Your task to perform on an android device: uninstall "Microsoft Authenticator" Image 0: 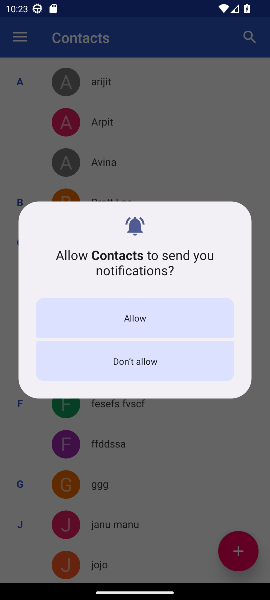
Step 0: press home button
Your task to perform on an android device: uninstall "Microsoft Authenticator" Image 1: 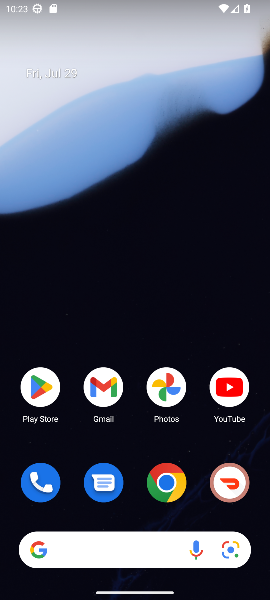
Step 1: click (41, 390)
Your task to perform on an android device: uninstall "Microsoft Authenticator" Image 2: 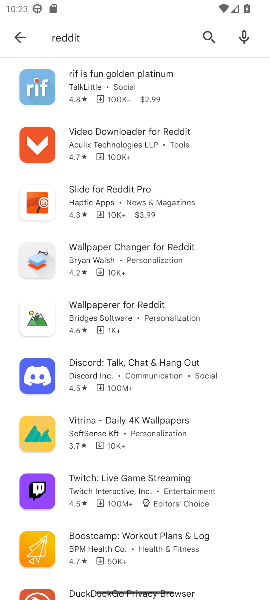
Step 2: click (209, 34)
Your task to perform on an android device: uninstall "Microsoft Authenticator" Image 3: 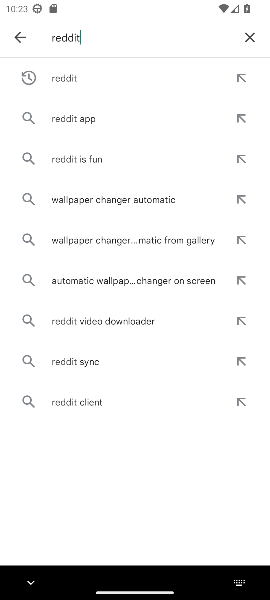
Step 3: click (259, 35)
Your task to perform on an android device: uninstall "Microsoft Authenticator" Image 4: 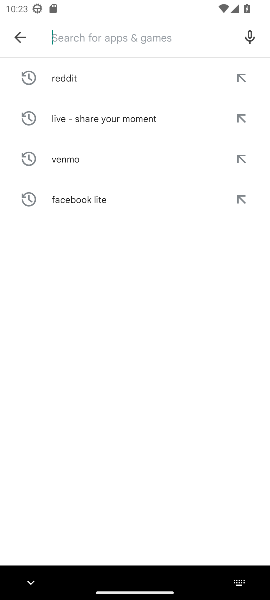
Step 4: type "Microsoft Authenticator"
Your task to perform on an android device: uninstall "Microsoft Authenticator" Image 5: 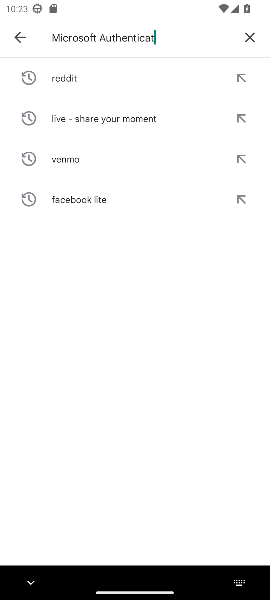
Step 5: type ""
Your task to perform on an android device: uninstall "Microsoft Authenticator" Image 6: 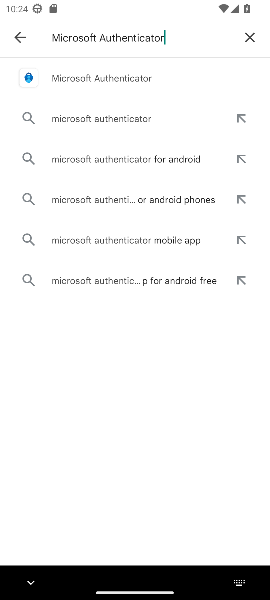
Step 6: click (130, 75)
Your task to perform on an android device: uninstall "Microsoft Authenticator" Image 7: 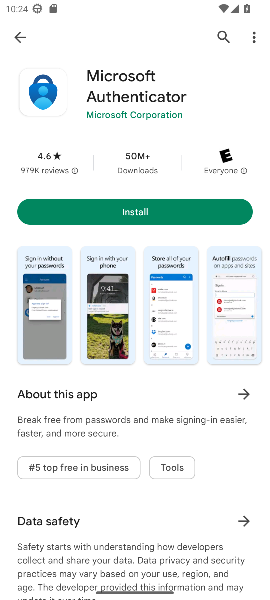
Step 7: task complete